Your task to perform on an android device: Go to CNN.com Image 0: 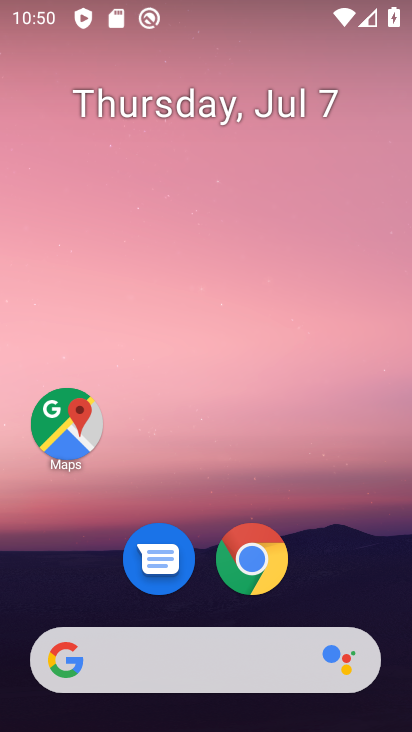
Step 0: drag from (356, 567) to (334, 121)
Your task to perform on an android device: Go to CNN.com Image 1: 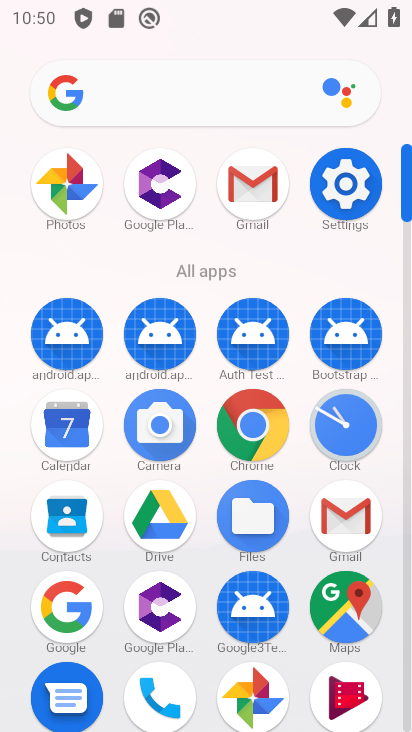
Step 1: drag from (296, 471) to (297, 261)
Your task to perform on an android device: Go to CNN.com Image 2: 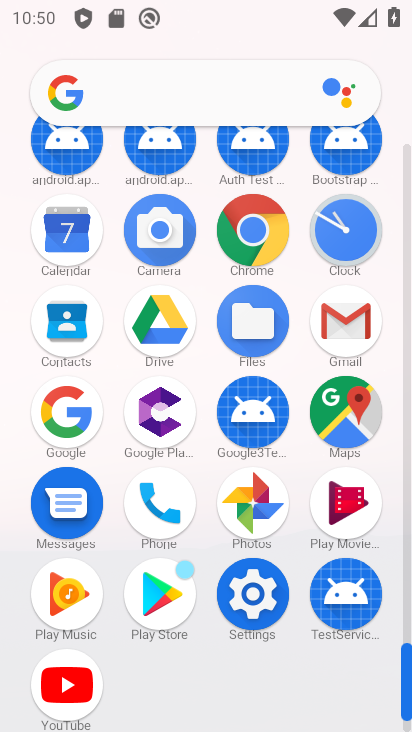
Step 2: click (257, 234)
Your task to perform on an android device: Go to CNN.com Image 3: 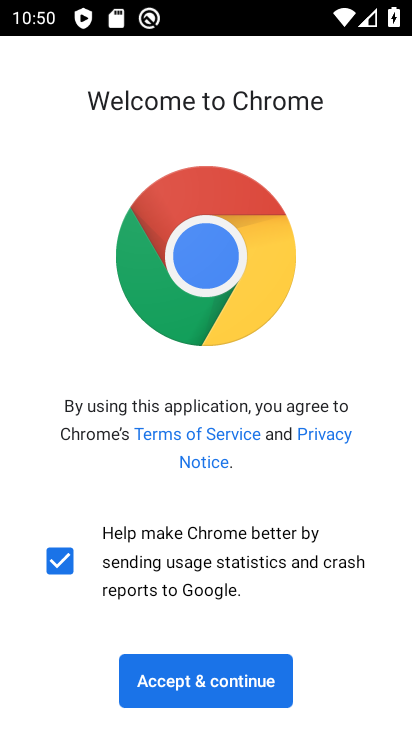
Step 3: click (211, 687)
Your task to perform on an android device: Go to CNN.com Image 4: 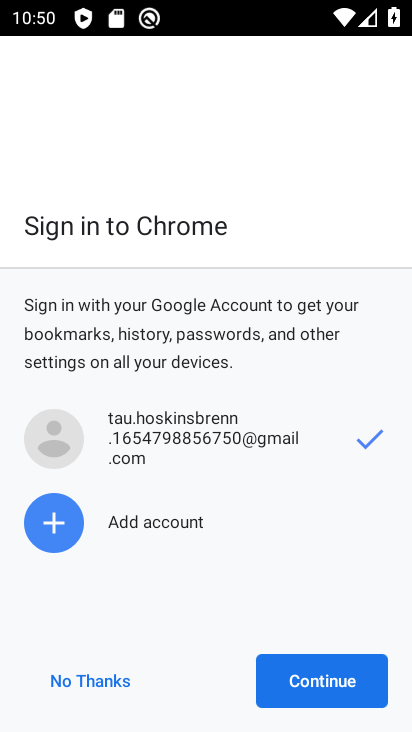
Step 4: click (331, 674)
Your task to perform on an android device: Go to CNN.com Image 5: 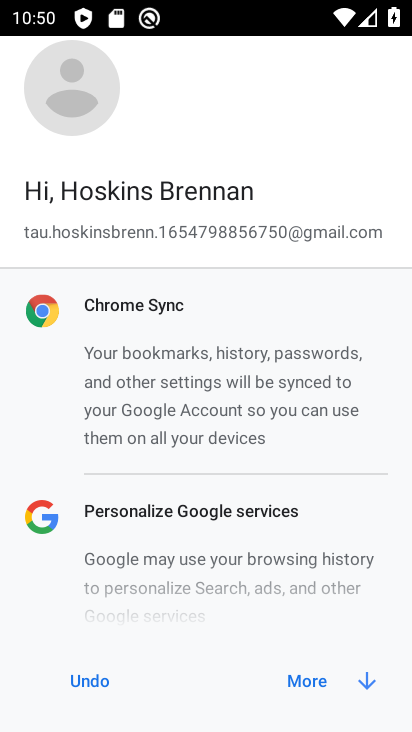
Step 5: click (320, 685)
Your task to perform on an android device: Go to CNN.com Image 6: 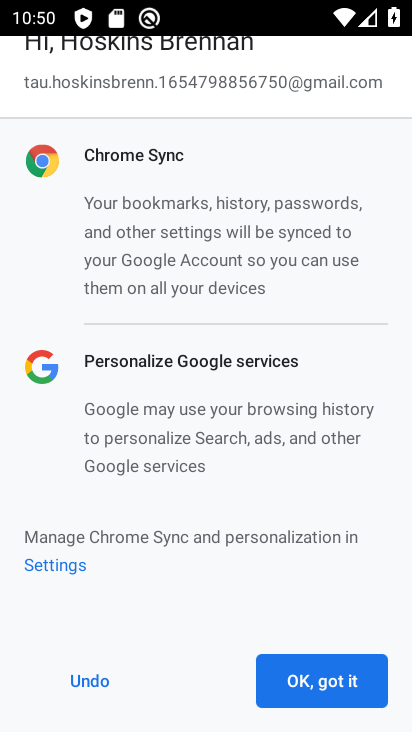
Step 6: click (359, 687)
Your task to perform on an android device: Go to CNN.com Image 7: 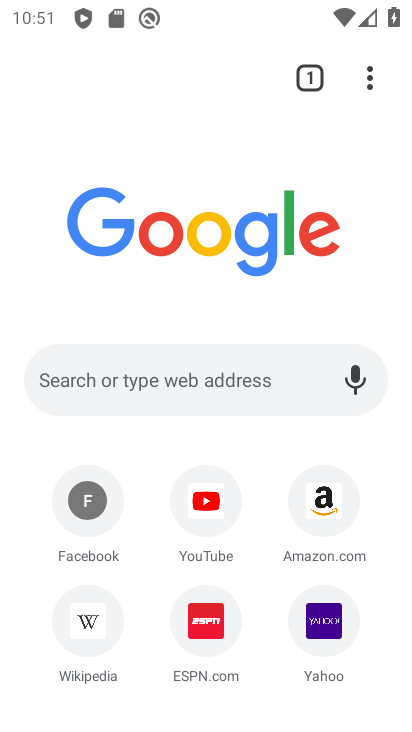
Step 7: click (222, 388)
Your task to perform on an android device: Go to CNN.com Image 8: 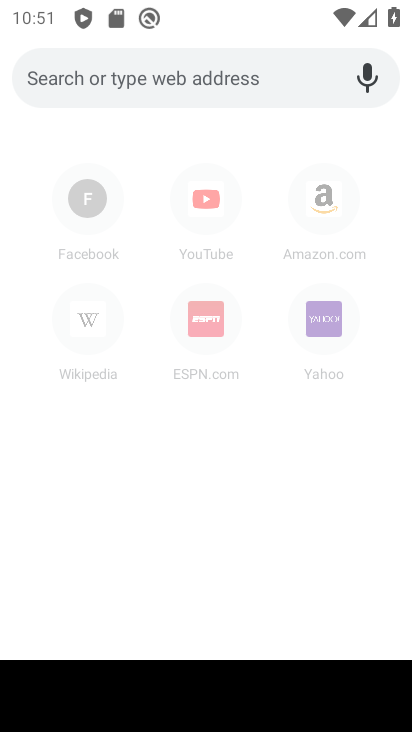
Step 8: type "cnn.com"
Your task to perform on an android device: Go to CNN.com Image 9: 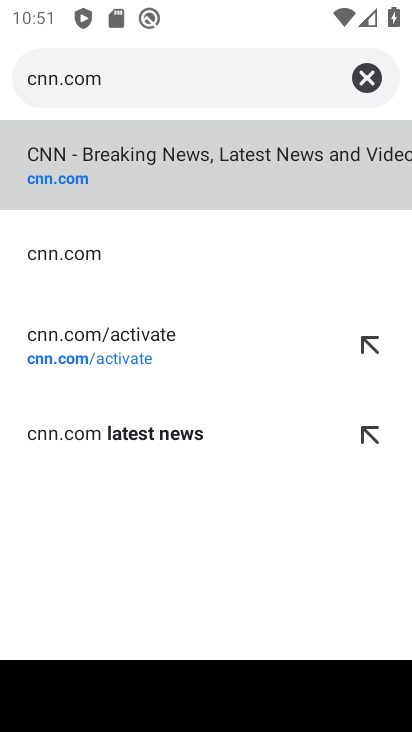
Step 9: click (258, 189)
Your task to perform on an android device: Go to CNN.com Image 10: 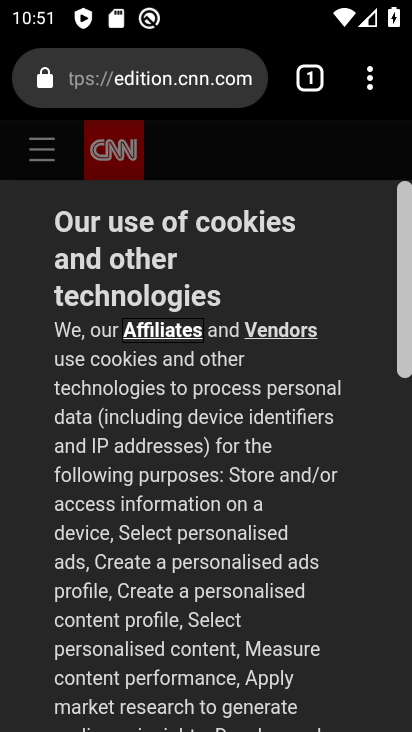
Step 10: task complete